Your task to perform on an android device: Open Reddit.com Image 0: 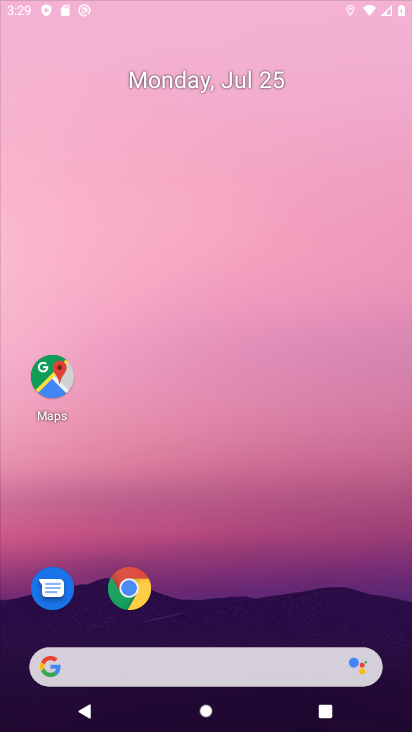
Step 0: press home button
Your task to perform on an android device: Open Reddit.com Image 1: 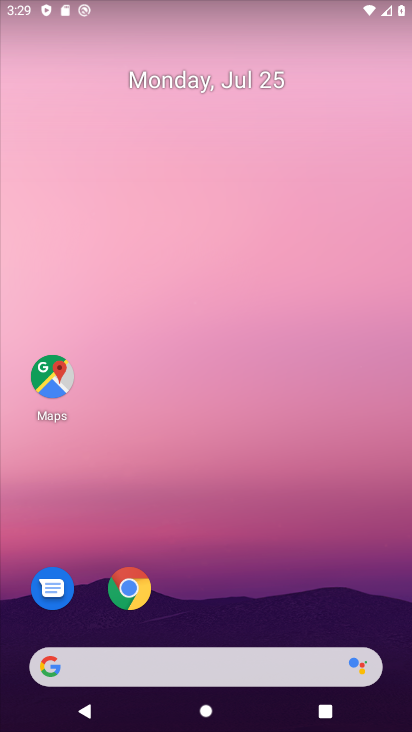
Step 1: drag from (223, 727) to (256, 35)
Your task to perform on an android device: Open Reddit.com Image 2: 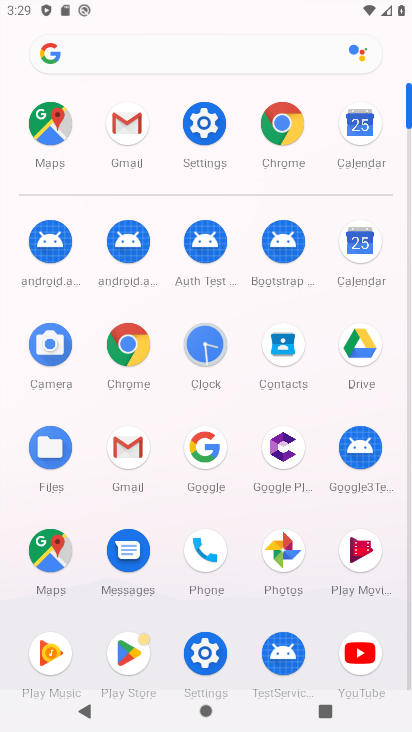
Step 2: click (289, 119)
Your task to perform on an android device: Open Reddit.com Image 3: 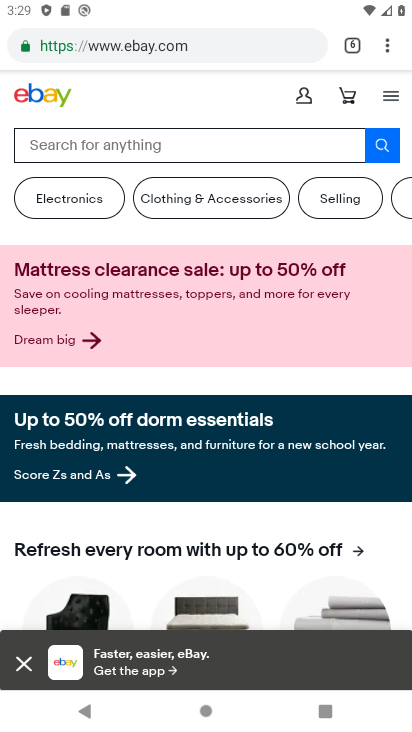
Step 3: click (386, 49)
Your task to perform on an android device: Open Reddit.com Image 4: 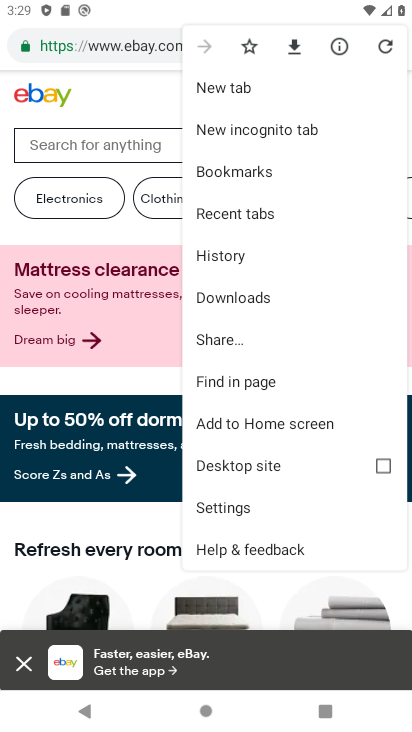
Step 4: click (213, 88)
Your task to perform on an android device: Open Reddit.com Image 5: 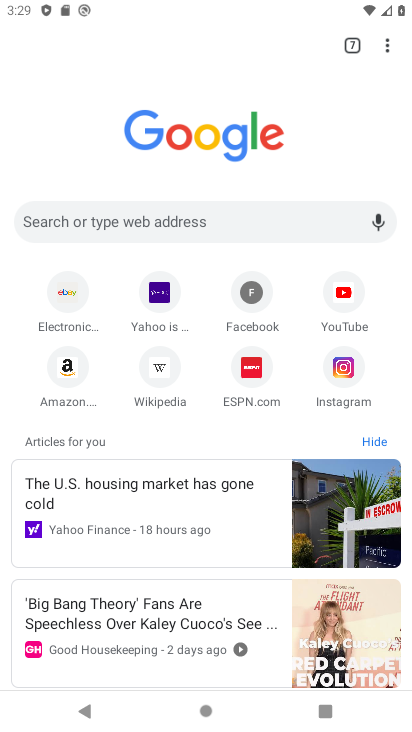
Step 5: click (256, 219)
Your task to perform on an android device: Open Reddit.com Image 6: 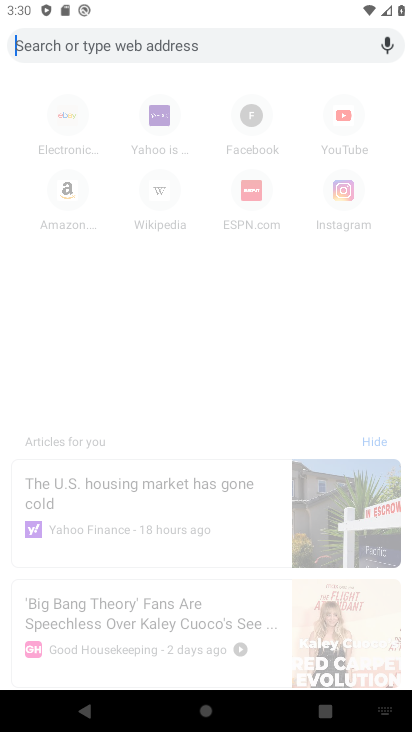
Step 6: type "Reddit.com"
Your task to perform on an android device: Open Reddit.com Image 7: 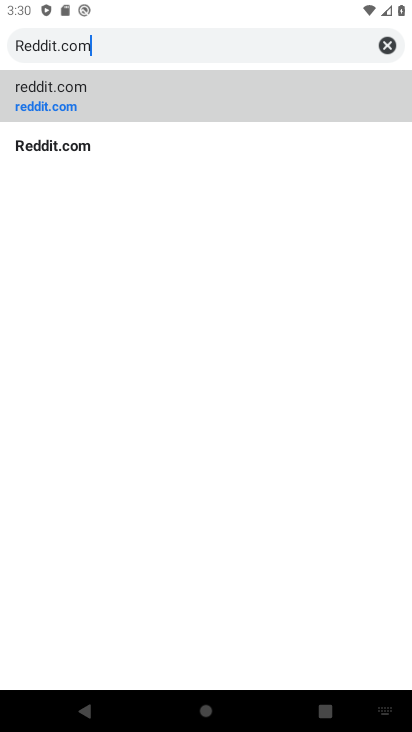
Step 7: type ""
Your task to perform on an android device: Open Reddit.com Image 8: 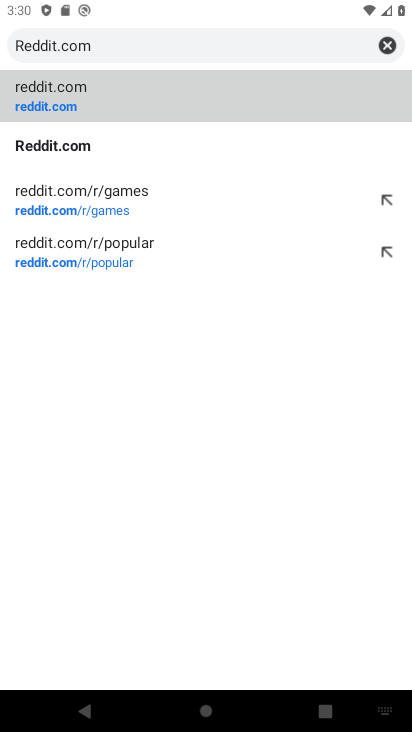
Step 8: click (51, 91)
Your task to perform on an android device: Open Reddit.com Image 9: 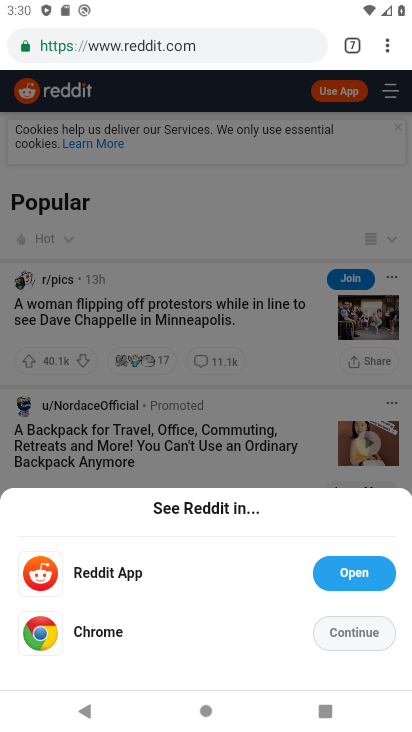
Step 9: task complete